Your task to perform on an android device: check battery use Image 0: 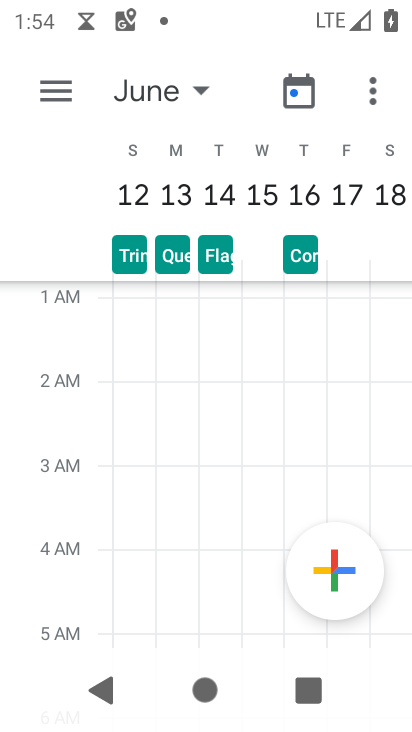
Step 0: press home button
Your task to perform on an android device: check battery use Image 1: 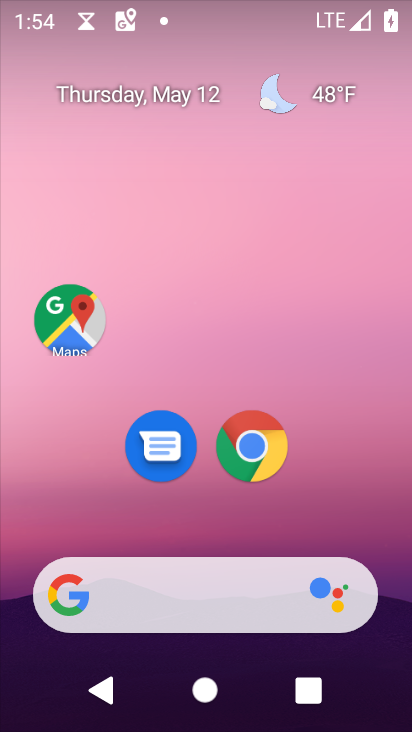
Step 1: drag from (300, 514) to (299, 115)
Your task to perform on an android device: check battery use Image 2: 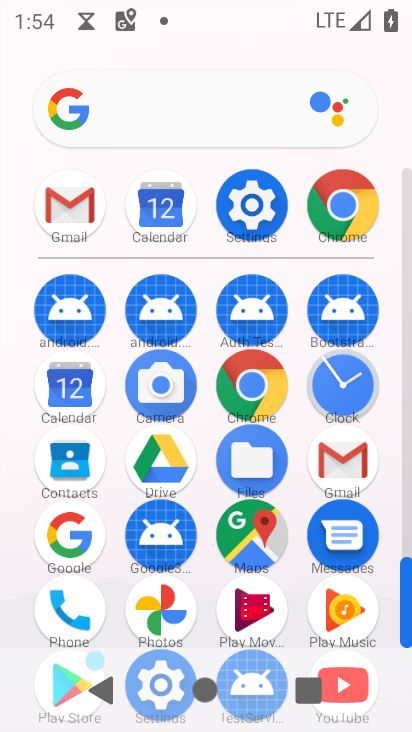
Step 2: click (257, 202)
Your task to perform on an android device: check battery use Image 3: 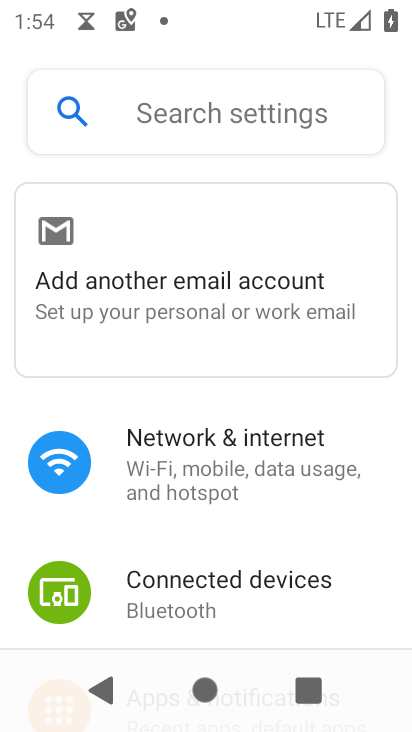
Step 3: drag from (285, 546) to (277, 231)
Your task to perform on an android device: check battery use Image 4: 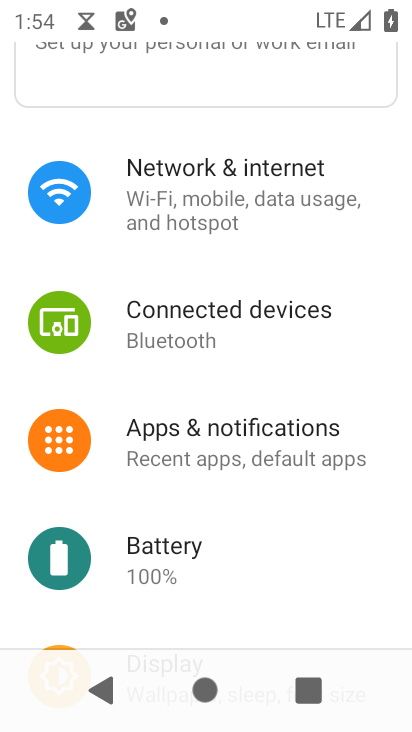
Step 4: click (163, 544)
Your task to perform on an android device: check battery use Image 5: 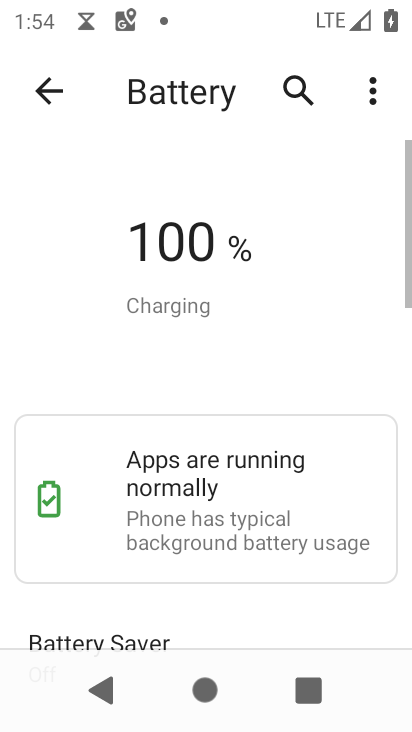
Step 5: drag from (282, 583) to (279, 261)
Your task to perform on an android device: check battery use Image 6: 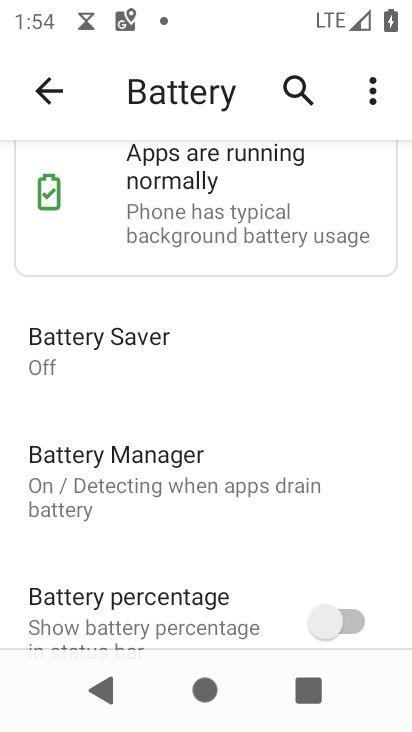
Step 6: click (382, 86)
Your task to perform on an android device: check battery use Image 7: 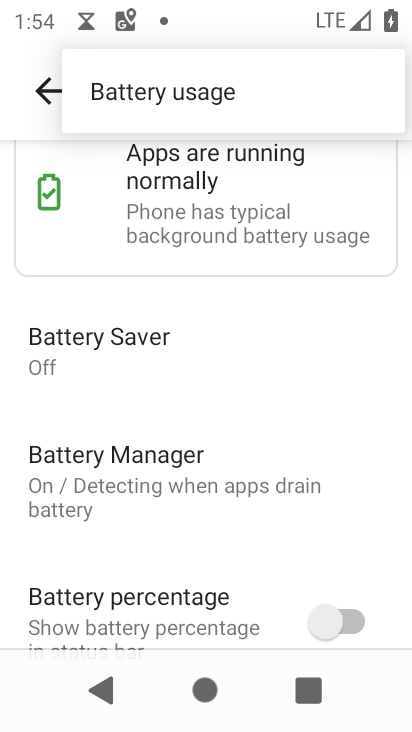
Step 7: click (217, 79)
Your task to perform on an android device: check battery use Image 8: 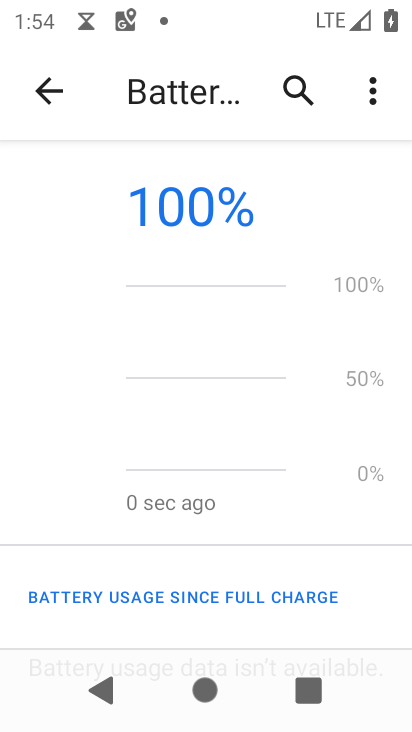
Step 8: task complete